Your task to perform on an android device: Open my contact list Image 0: 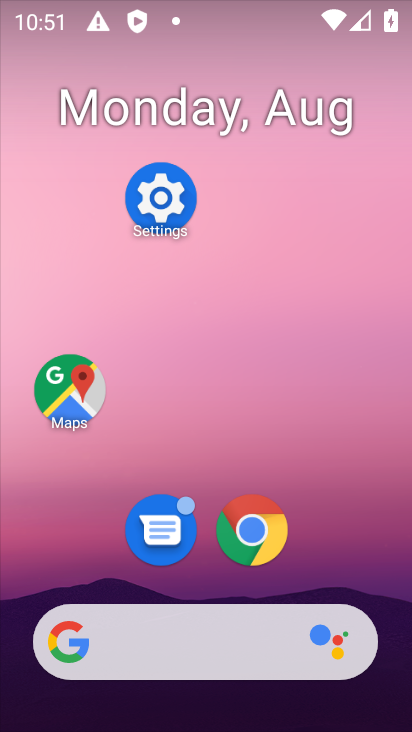
Step 0: drag from (190, 569) to (162, 295)
Your task to perform on an android device: Open my contact list Image 1: 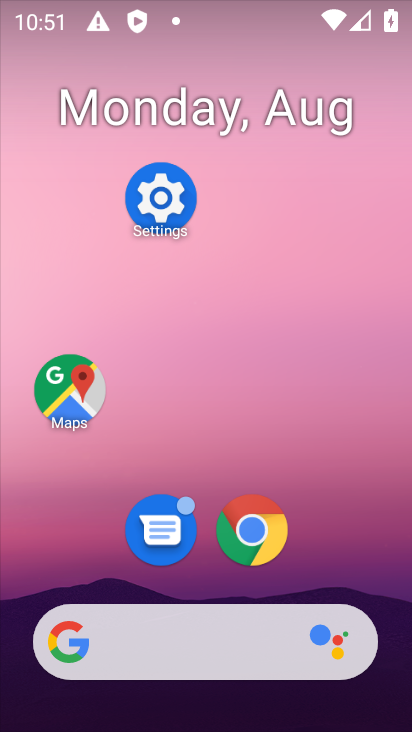
Step 1: drag from (215, 555) to (193, 231)
Your task to perform on an android device: Open my contact list Image 2: 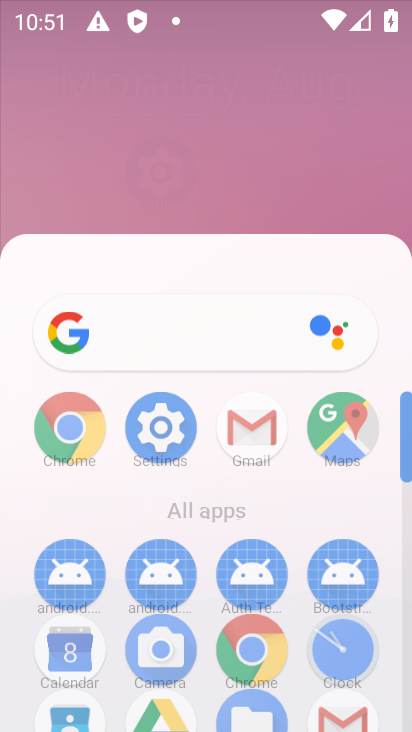
Step 2: drag from (281, 635) to (234, 184)
Your task to perform on an android device: Open my contact list Image 3: 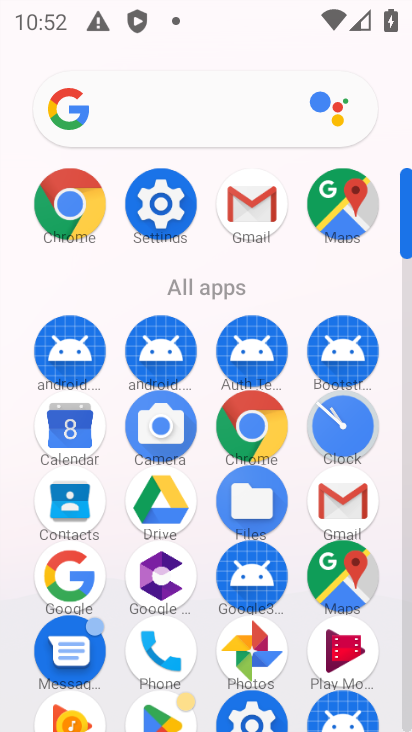
Step 3: click (70, 511)
Your task to perform on an android device: Open my contact list Image 4: 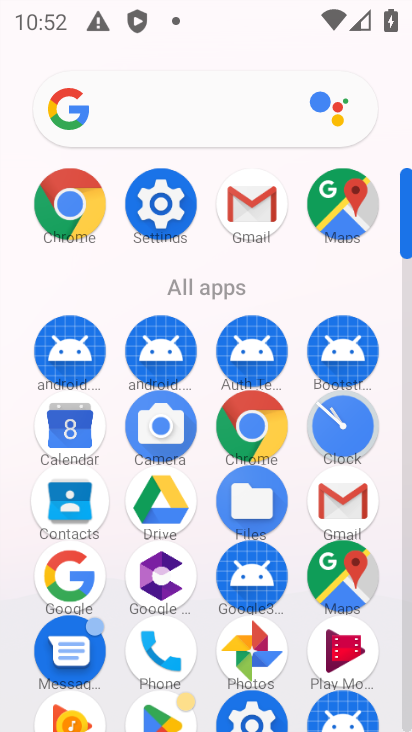
Step 4: click (72, 511)
Your task to perform on an android device: Open my contact list Image 5: 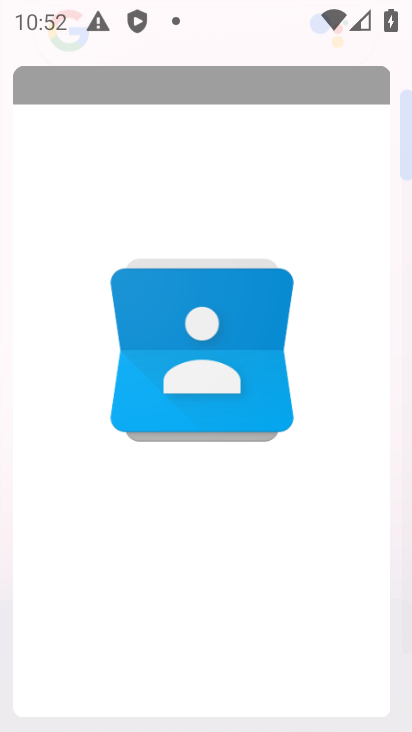
Step 5: click (73, 513)
Your task to perform on an android device: Open my contact list Image 6: 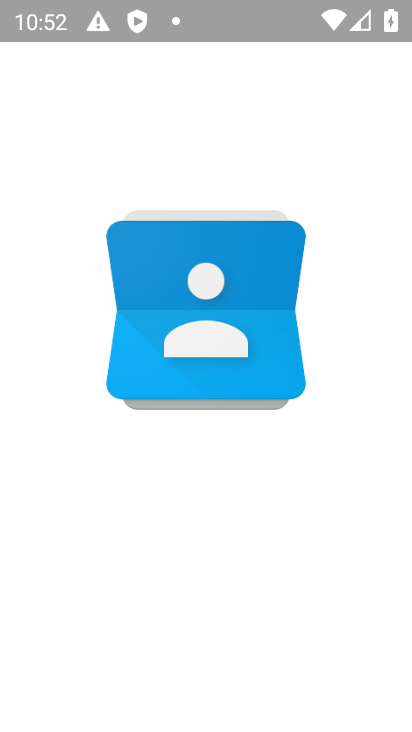
Step 6: click (75, 514)
Your task to perform on an android device: Open my contact list Image 7: 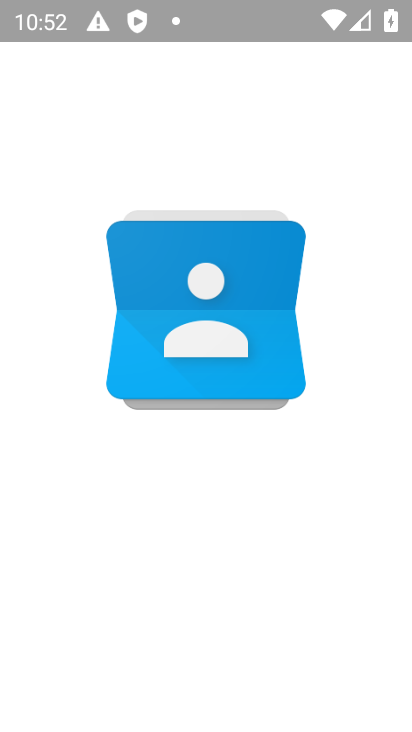
Step 7: click (69, 512)
Your task to perform on an android device: Open my contact list Image 8: 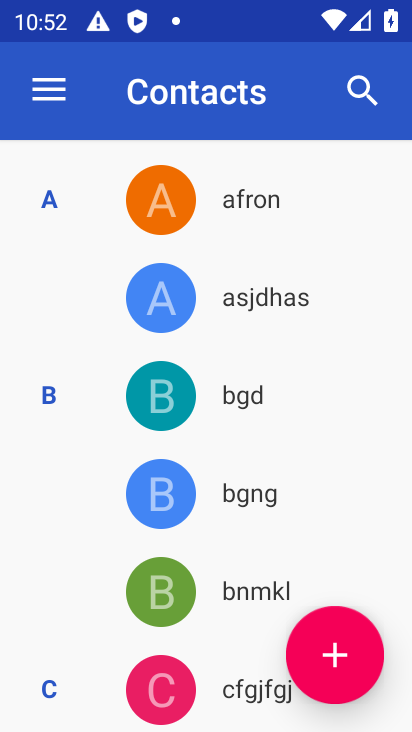
Step 8: task complete